Your task to perform on an android device: See recent photos Image 0: 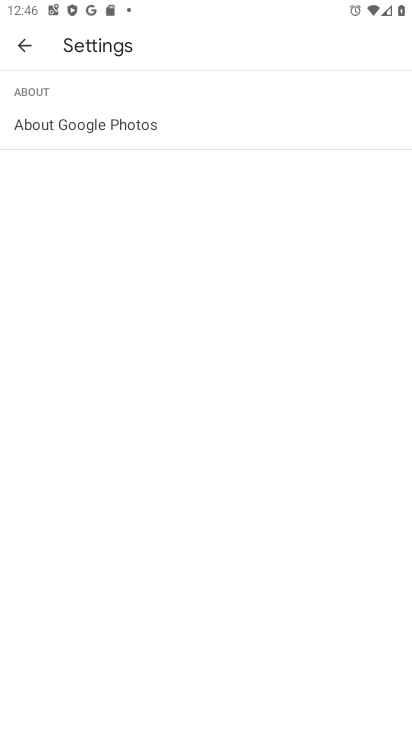
Step 0: press home button
Your task to perform on an android device: See recent photos Image 1: 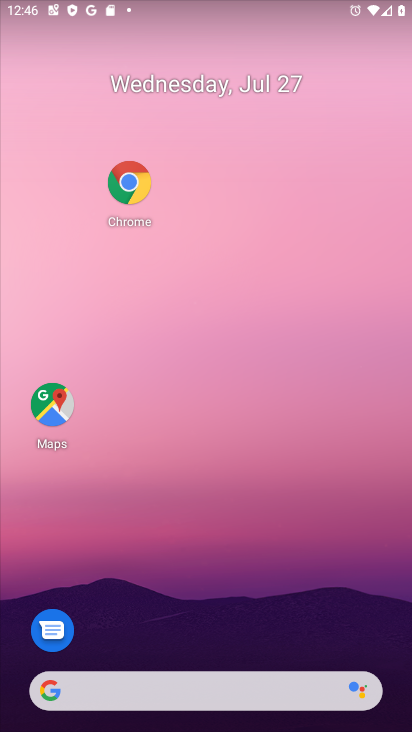
Step 1: drag from (198, 730) to (228, 1)
Your task to perform on an android device: See recent photos Image 2: 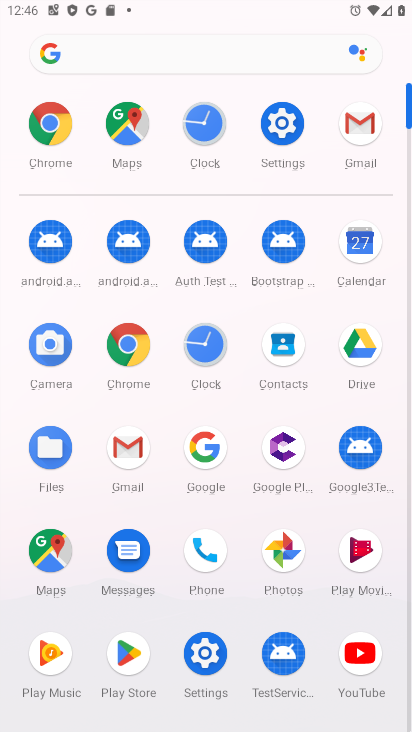
Step 2: click (281, 550)
Your task to perform on an android device: See recent photos Image 3: 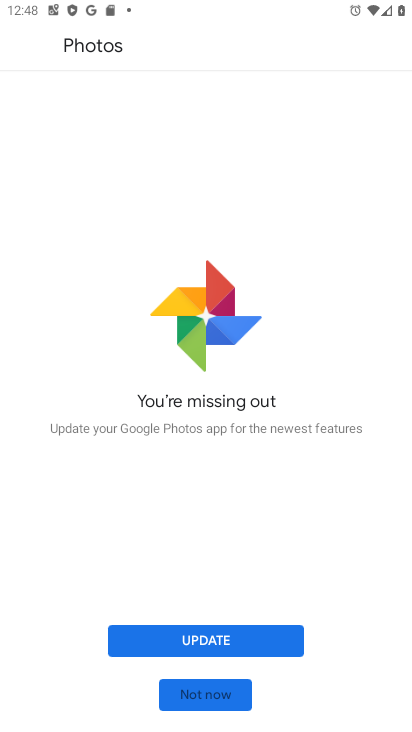
Step 3: click (196, 644)
Your task to perform on an android device: See recent photos Image 4: 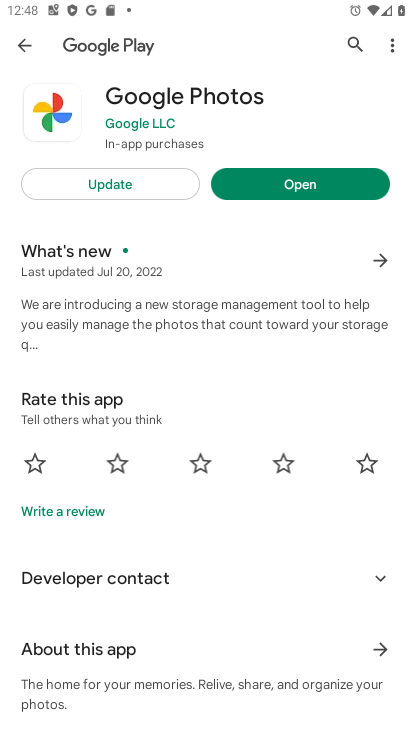
Step 4: click (123, 186)
Your task to perform on an android device: See recent photos Image 5: 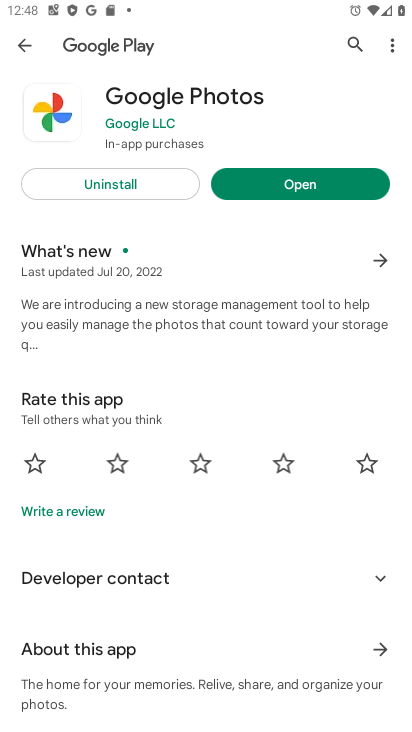
Step 5: click (308, 187)
Your task to perform on an android device: See recent photos Image 6: 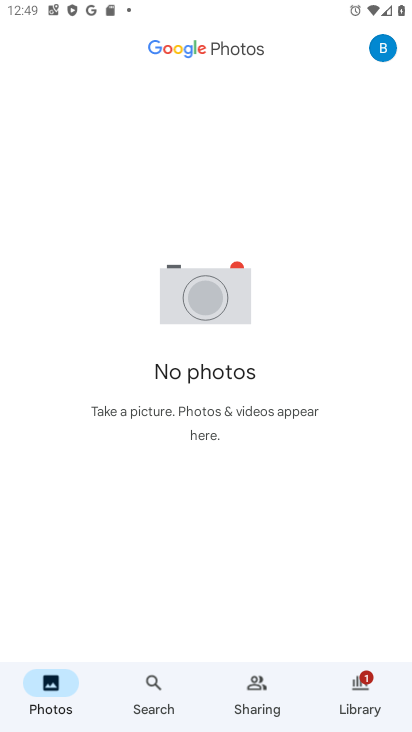
Step 6: click (159, 695)
Your task to perform on an android device: See recent photos Image 7: 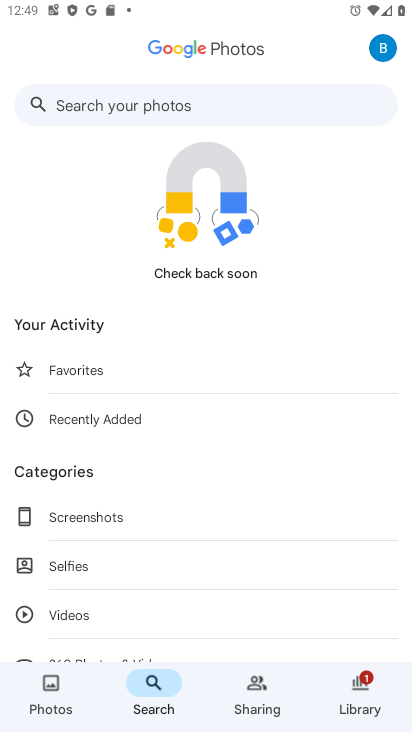
Step 7: task complete